Your task to perform on an android device: Open Google Image 0: 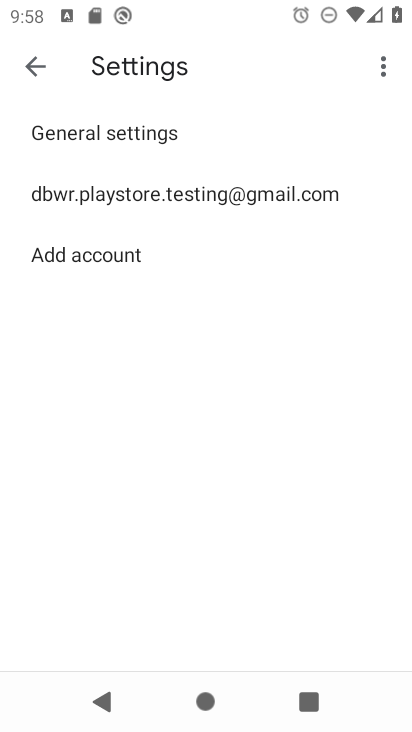
Step 0: press home button
Your task to perform on an android device: Open Google Image 1: 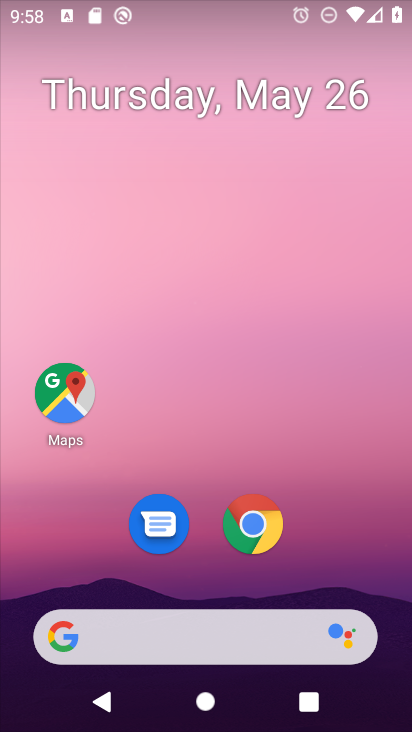
Step 1: click (277, 631)
Your task to perform on an android device: Open Google Image 2: 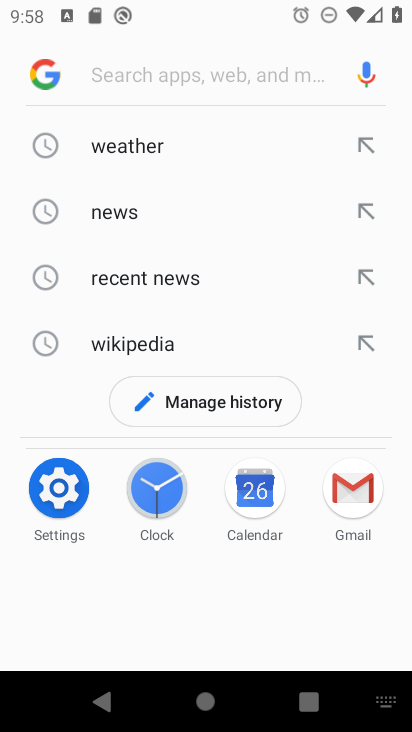
Step 2: click (50, 77)
Your task to perform on an android device: Open Google Image 3: 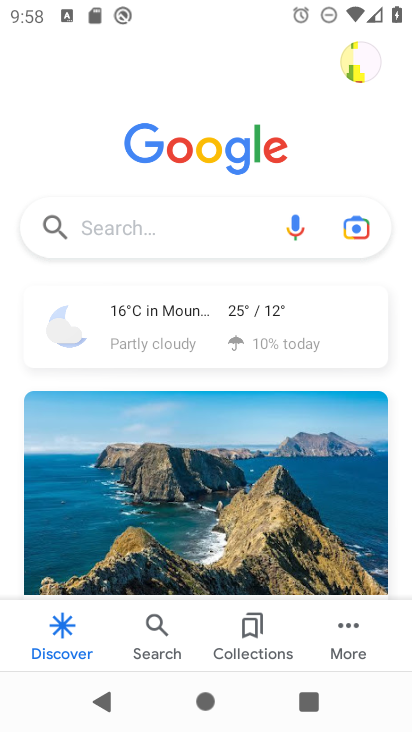
Step 3: task complete